Your task to perform on an android device: delete the emails in spam in the gmail app Image 0: 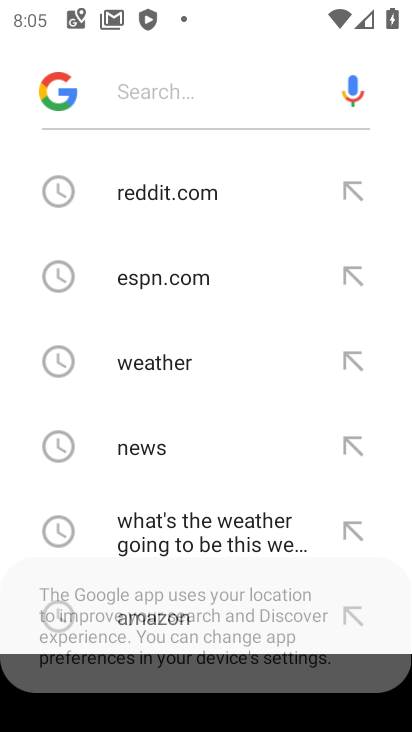
Step 0: press home button
Your task to perform on an android device: delete the emails in spam in the gmail app Image 1: 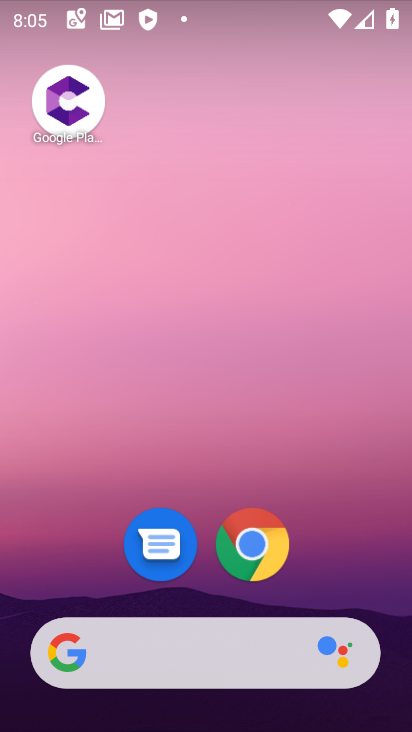
Step 1: drag from (388, 647) to (204, 44)
Your task to perform on an android device: delete the emails in spam in the gmail app Image 2: 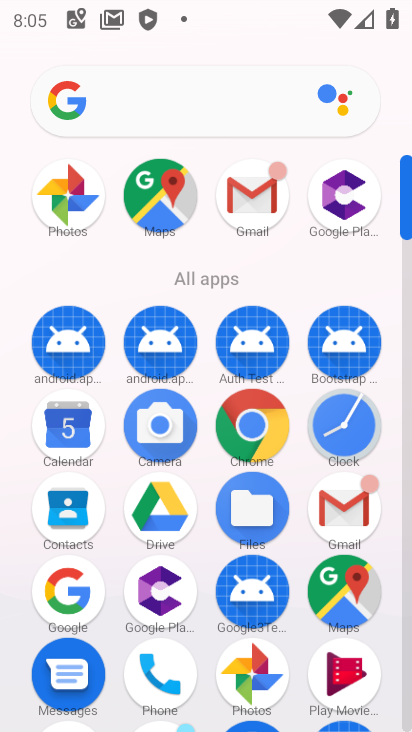
Step 2: click (352, 515)
Your task to perform on an android device: delete the emails in spam in the gmail app Image 3: 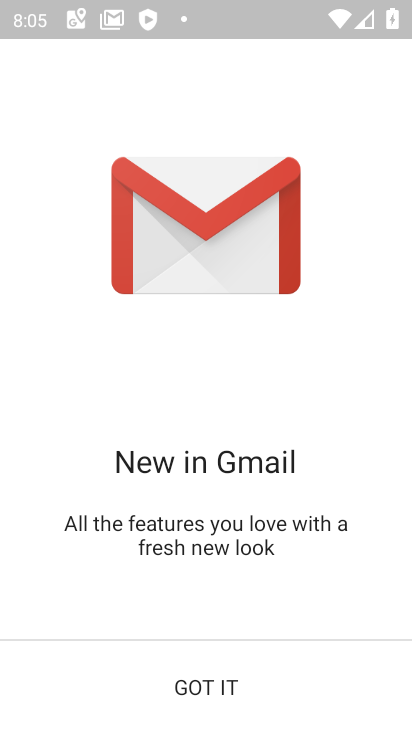
Step 3: click (186, 698)
Your task to perform on an android device: delete the emails in spam in the gmail app Image 4: 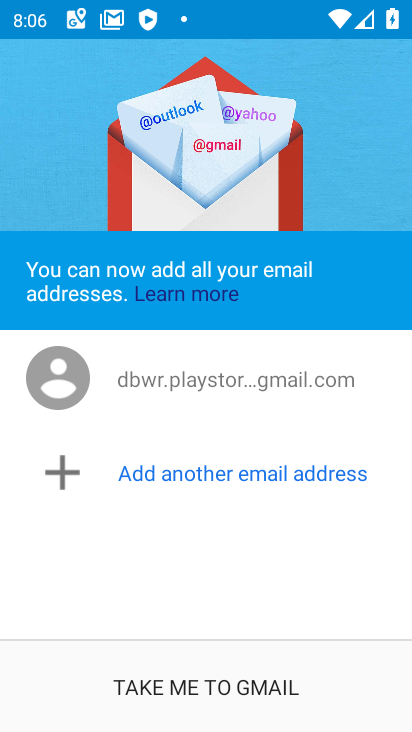
Step 4: click (202, 681)
Your task to perform on an android device: delete the emails in spam in the gmail app Image 5: 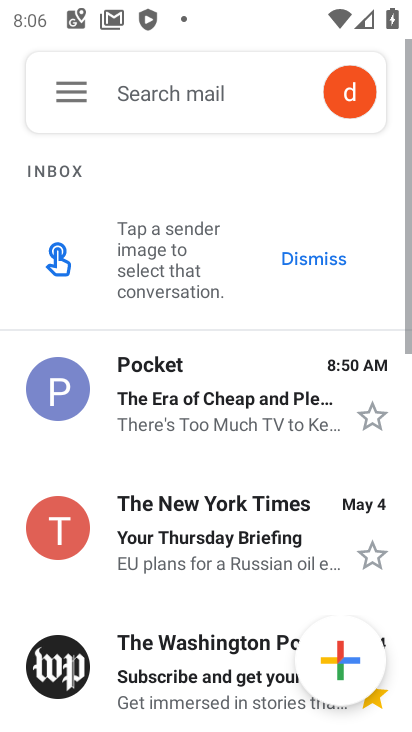
Step 5: click (73, 82)
Your task to perform on an android device: delete the emails in spam in the gmail app Image 6: 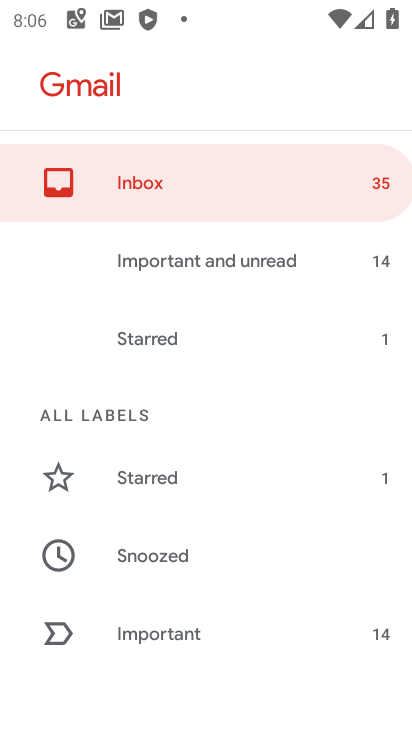
Step 6: drag from (155, 613) to (173, 113)
Your task to perform on an android device: delete the emails in spam in the gmail app Image 7: 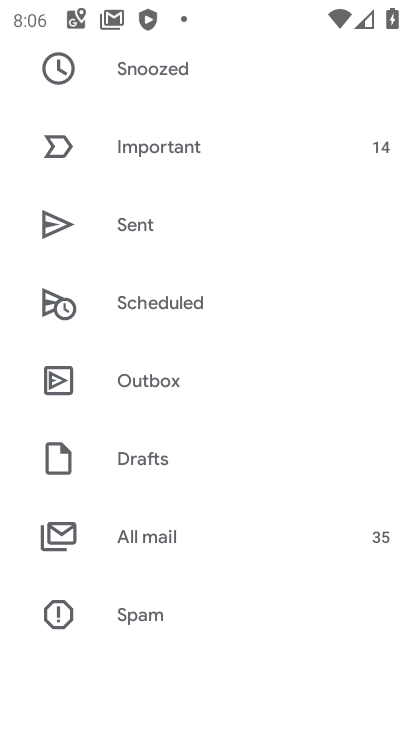
Step 7: click (143, 600)
Your task to perform on an android device: delete the emails in spam in the gmail app Image 8: 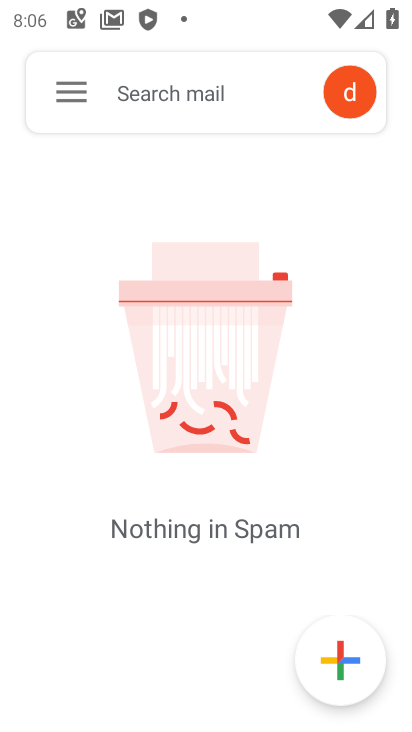
Step 8: task complete